Your task to perform on an android device: read, delete, or share a saved page in the chrome app Image 0: 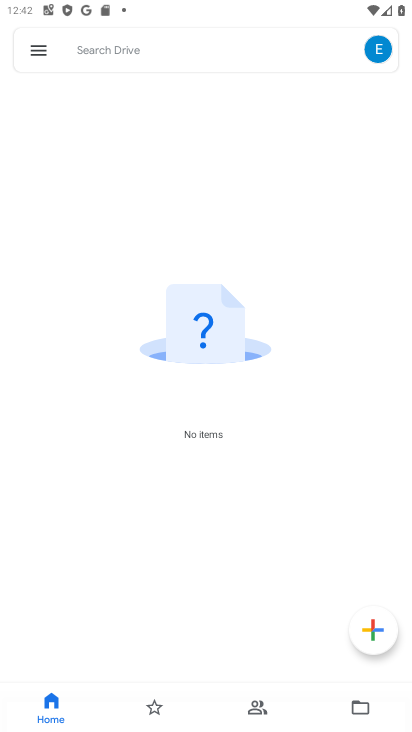
Step 0: press home button
Your task to perform on an android device: read, delete, or share a saved page in the chrome app Image 1: 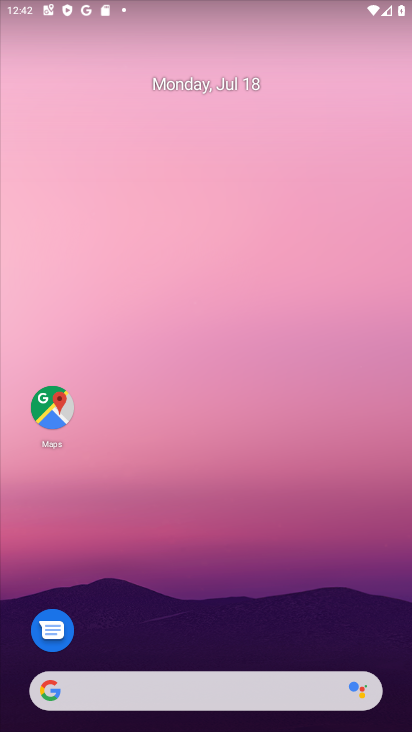
Step 1: drag from (251, 687) to (234, 120)
Your task to perform on an android device: read, delete, or share a saved page in the chrome app Image 2: 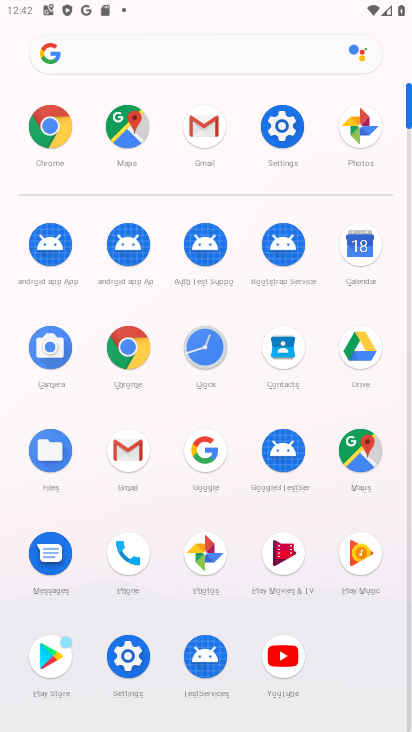
Step 2: click (138, 353)
Your task to perform on an android device: read, delete, or share a saved page in the chrome app Image 3: 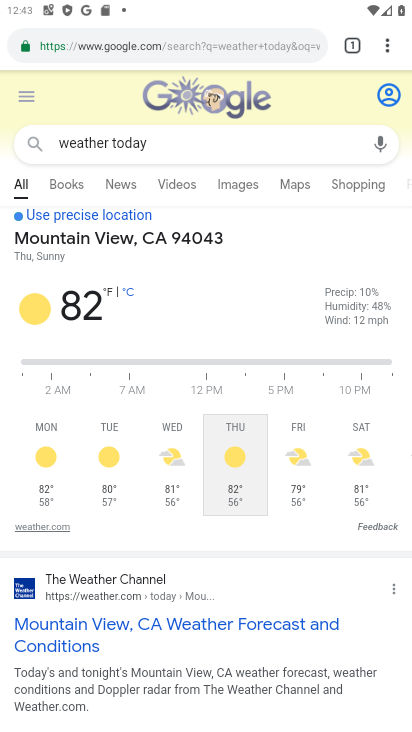
Step 3: task complete